Your task to perform on an android device: see creations saved in the google photos Image 0: 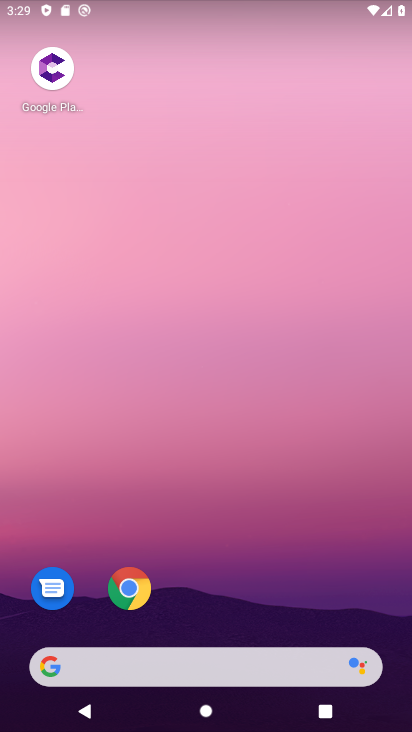
Step 0: drag from (249, 559) to (314, 109)
Your task to perform on an android device: see creations saved in the google photos Image 1: 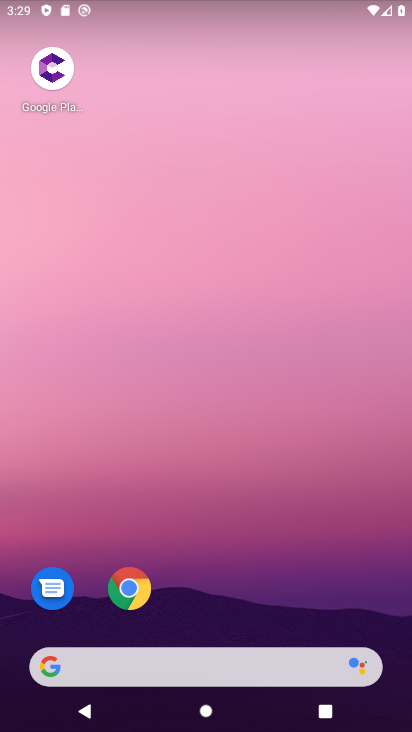
Step 1: drag from (284, 550) to (339, 36)
Your task to perform on an android device: see creations saved in the google photos Image 2: 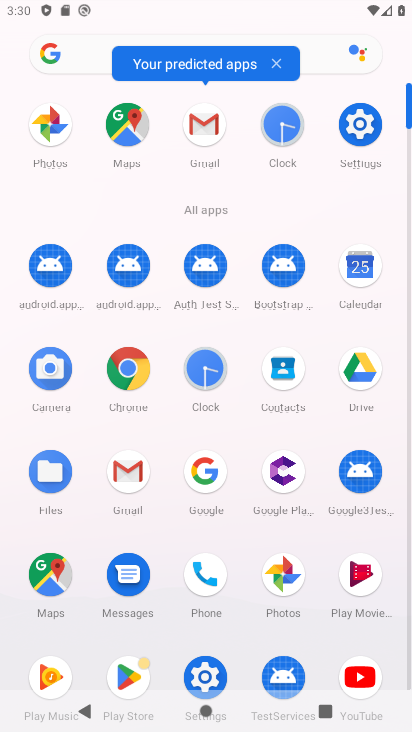
Step 2: click (290, 575)
Your task to perform on an android device: see creations saved in the google photos Image 3: 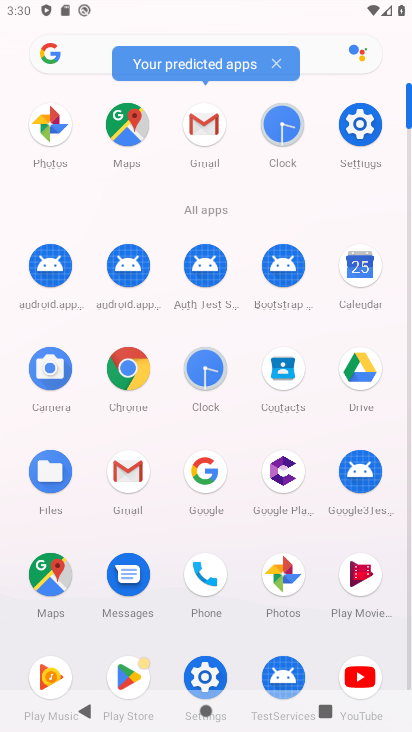
Step 3: click (284, 572)
Your task to perform on an android device: see creations saved in the google photos Image 4: 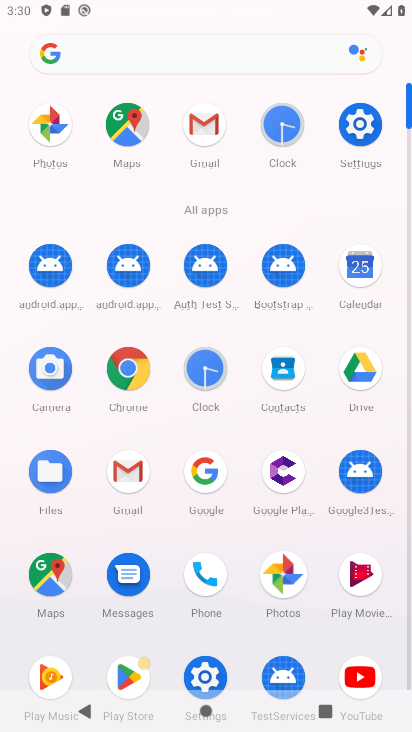
Step 4: click (284, 572)
Your task to perform on an android device: see creations saved in the google photos Image 5: 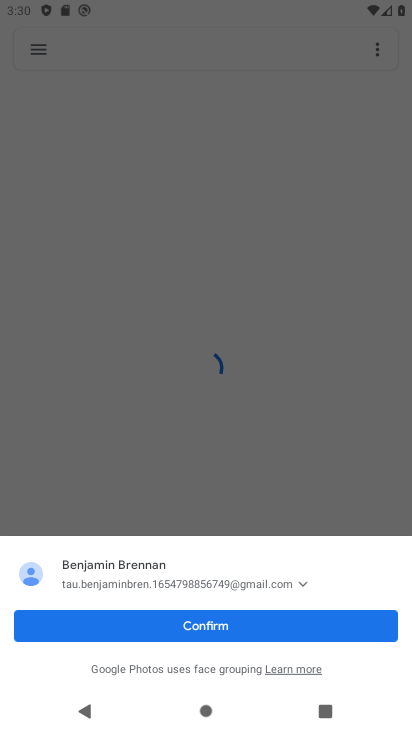
Step 5: click (222, 614)
Your task to perform on an android device: see creations saved in the google photos Image 6: 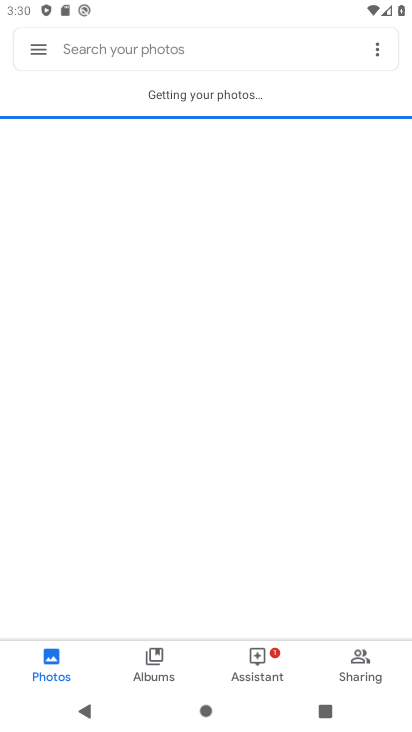
Step 6: task complete